Your task to perform on an android device: turn off translation in the chrome app Image 0: 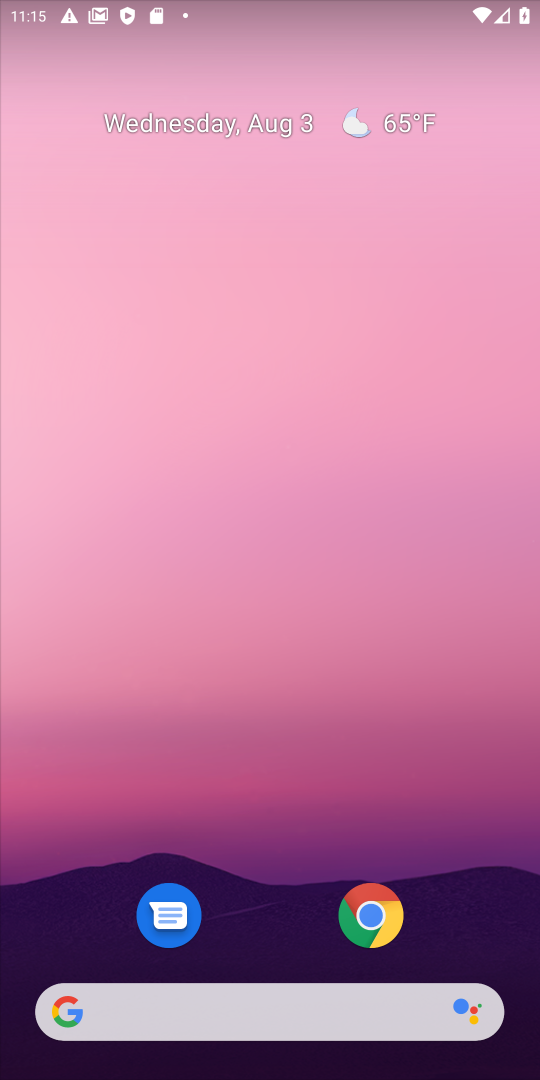
Step 0: click (366, 921)
Your task to perform on an android device: turn off translation in the chrome app Image 1: 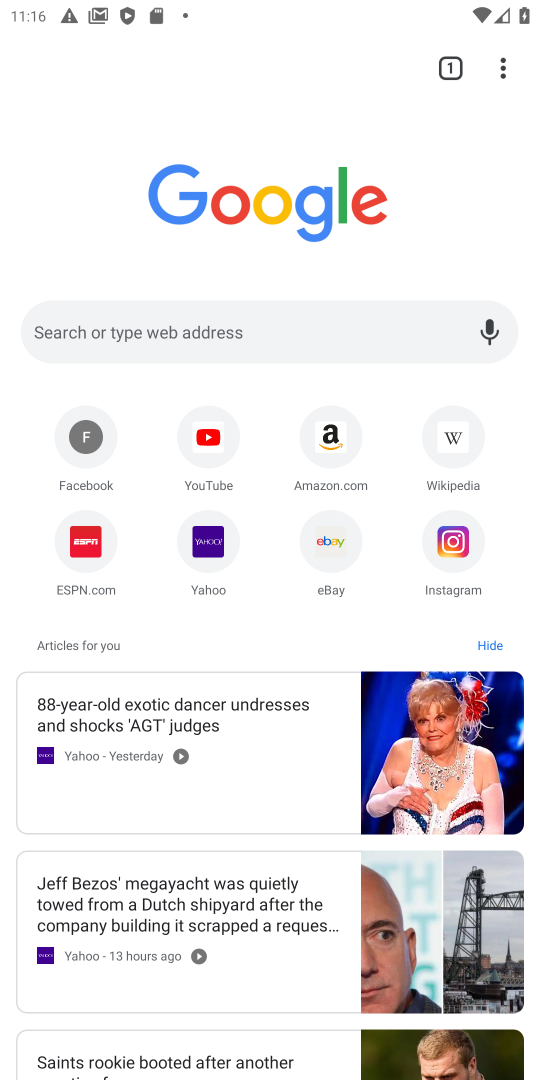
Step 1: click (504, 63)
Your task to perform on an android device: turn off translation in the chrome app Image 2: 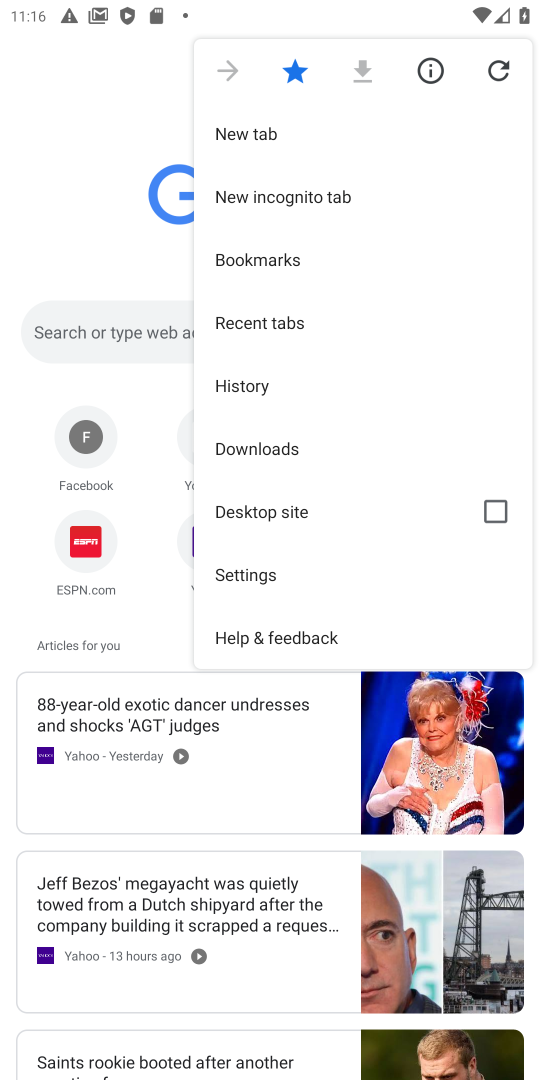
Step 2: click (256, 578)
Your task to perform on an android device: turn off translation in the chrome app Image 3: 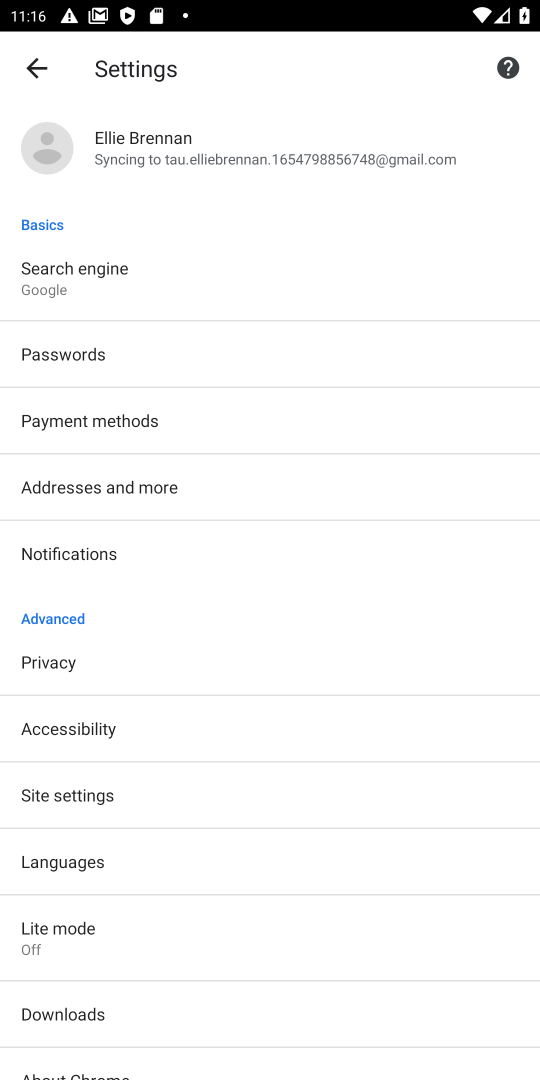
Step 3: click (77, 874)
Your task to perform on an android device: turn off translation in the chrome app Image 4: 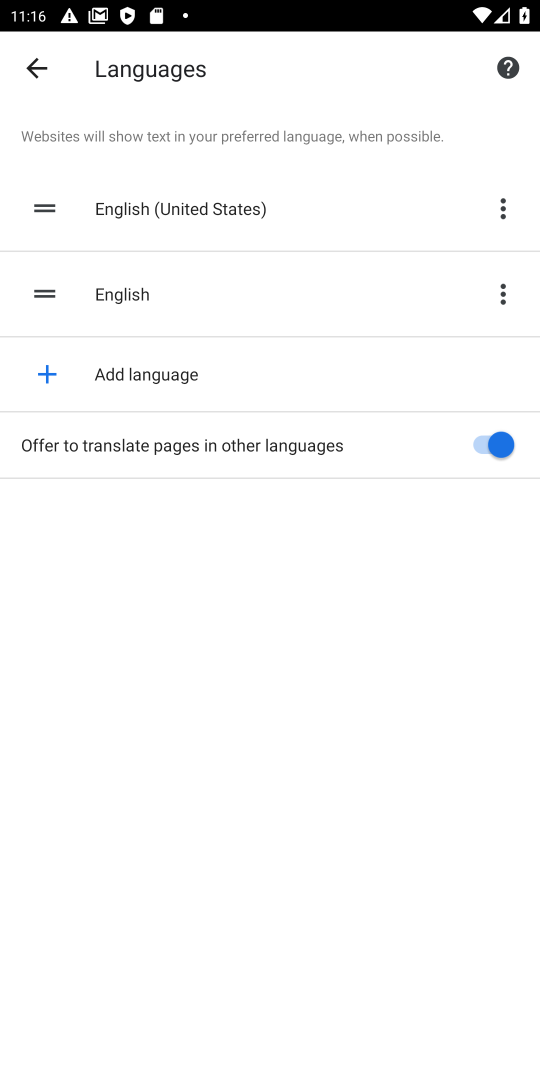
Step 4: click (476, 433)
Your task to perform on an android device: turn off translation in the chrome app Image 5: 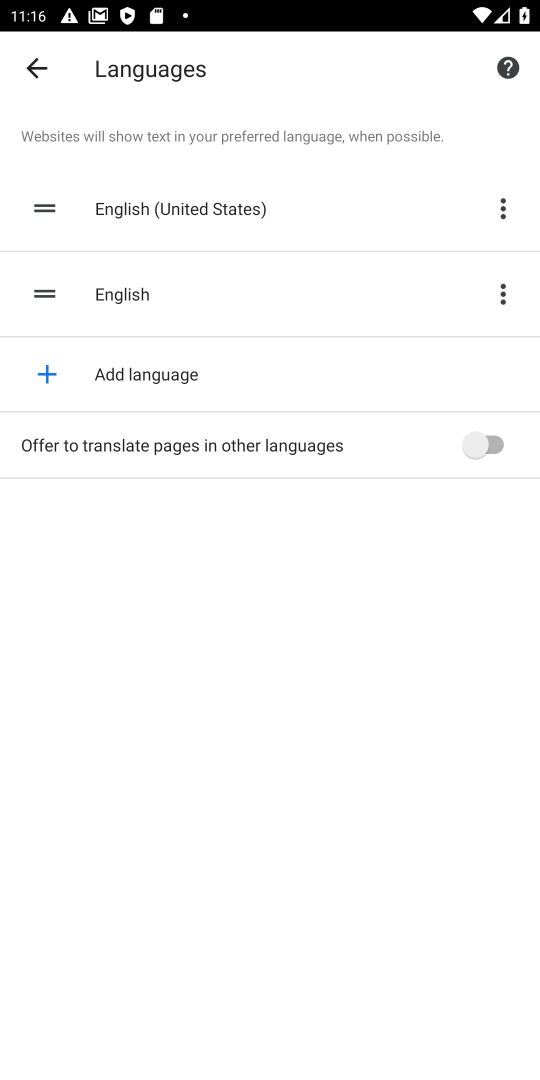
Step 5: task complete